Your task to perform on an android device: turn on wifi Image 0: 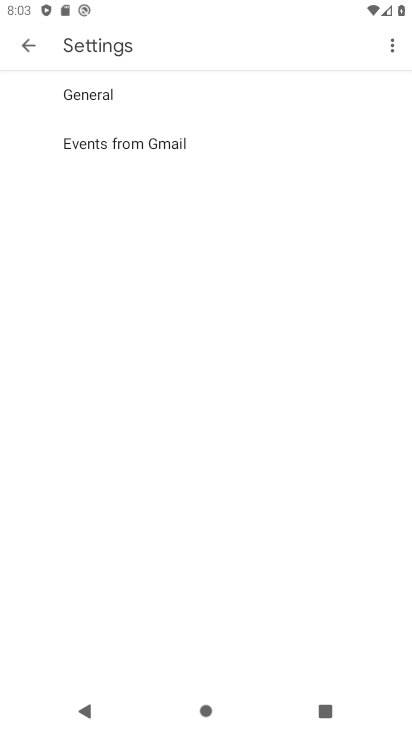
Step 0: press home button
Your task to perform on an android device: turn on wifi Image 1: 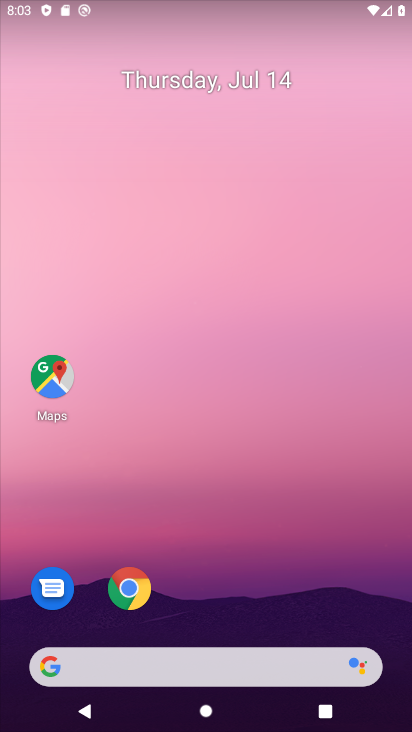
Step 1: drag from (216, 597) to (231, 3)
Your task to perform on an android device: turn on wifi Image 2: 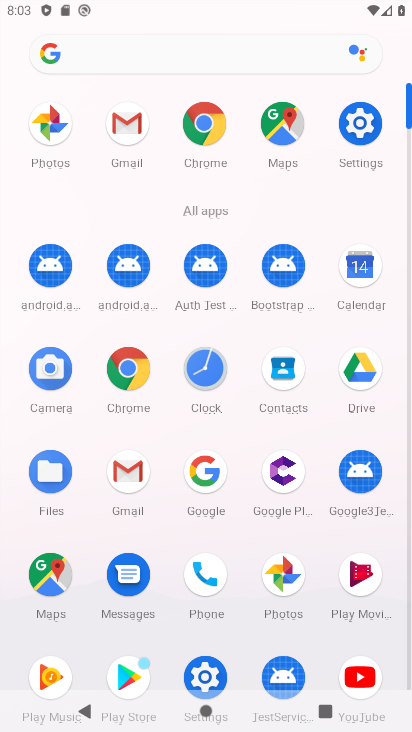
Step 2: click (348, 150)
Your task to perform on an android device: turn on wifi Image 3: 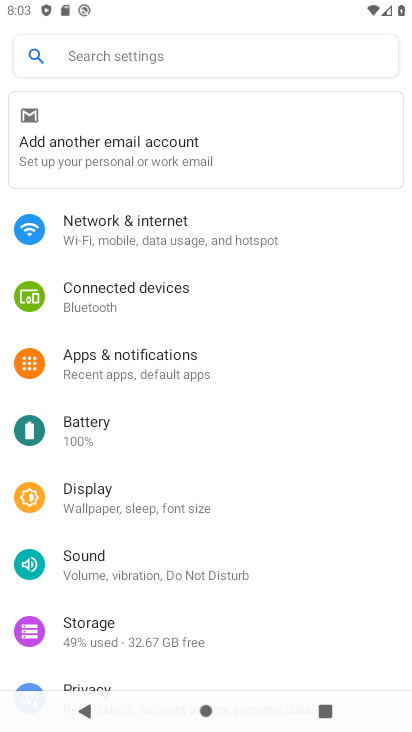
Step 3: click (170, 235)
Your task to perform on an android device: turn on wifi Image 4: 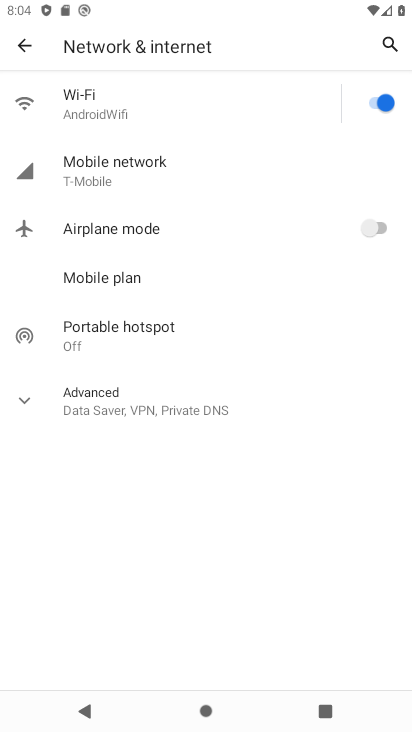
Step 4: task complete